Your task to perform on an android device: Open Chrome and go to the settings page Image 0: 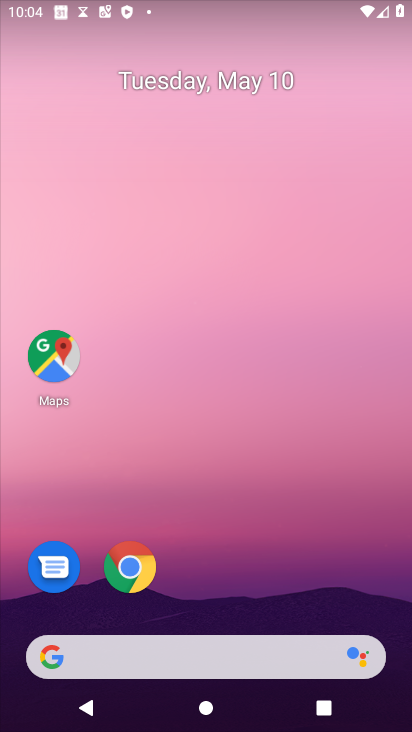
Step 0: click (136, 562)
Your task to perform on an android device: Open Chrome and go to the settings page Image 1: 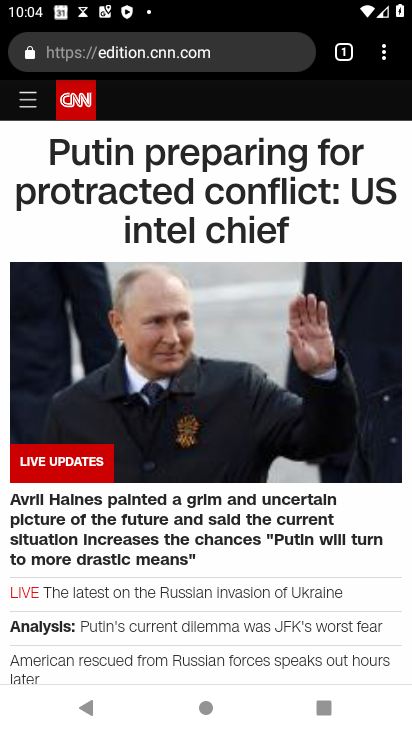
Step 1: click (388, 57)
Your task to perform on an android device: Open Chrome and go to the settings page Image 2: 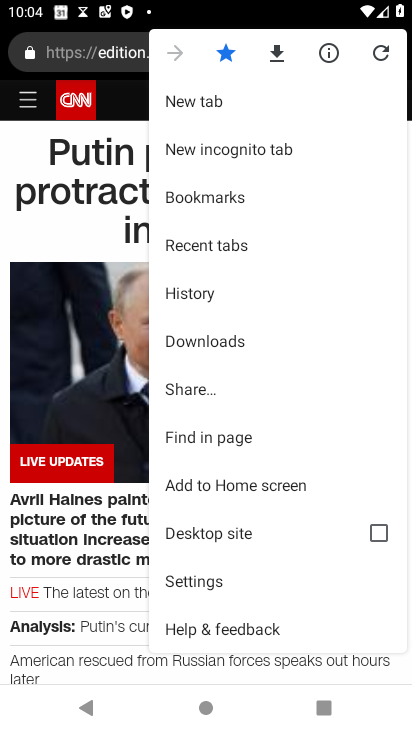
Step 2: click (191, 585)
Your task to perform on an android device: Open Chrome and go to the settings page Image 3: 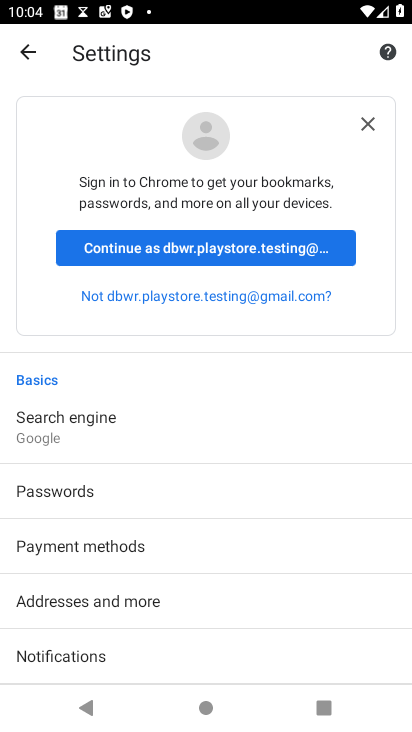
Step 3: task complete